Your task to perform on an android device: find snoozed emails in the gmail app Image 0: 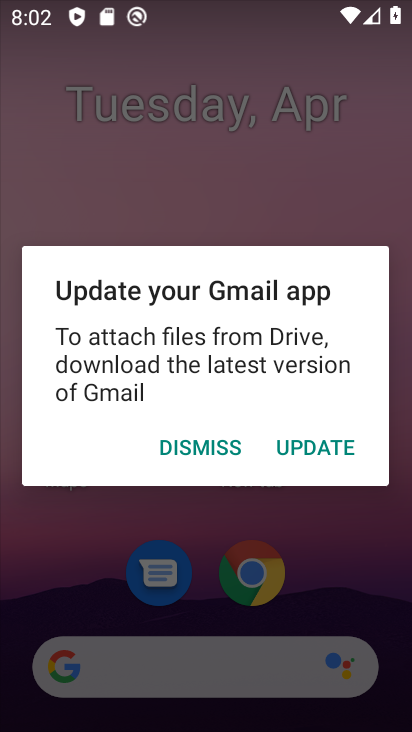
Step 0: press home button
Your task to perform on an android device: find snoozed emails in the gmail app Image 1: 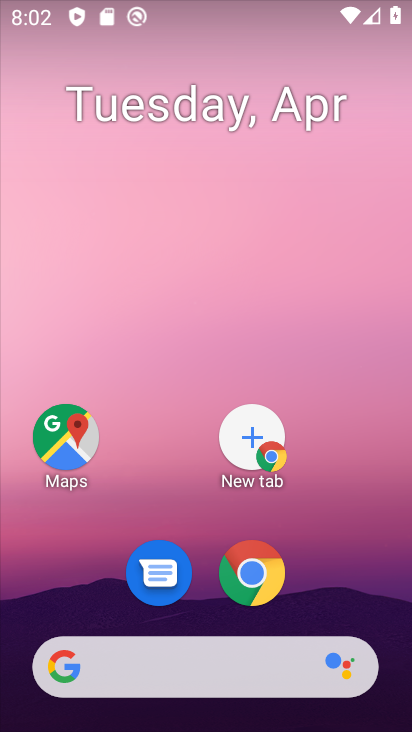
Step 1: drag from (168, 111) to (177, 4)
Your task to perform on an android device: find snoozed emails in the gmail app Image 2: 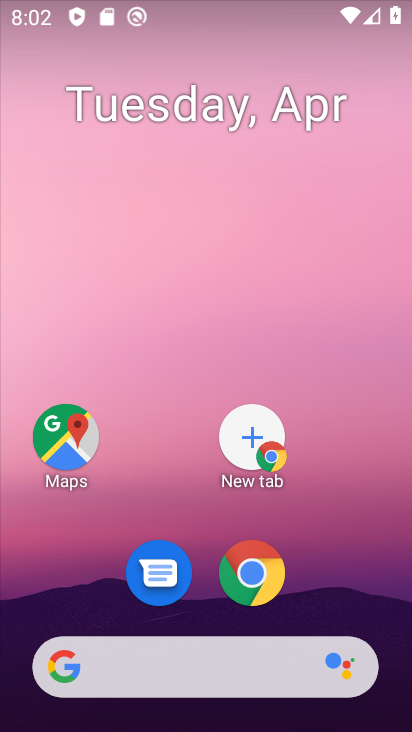
Step 2: drag from (241, 262) to (250, 69)
Your task to perform on an android device: find snoozed emails in the gmail app Image 3: 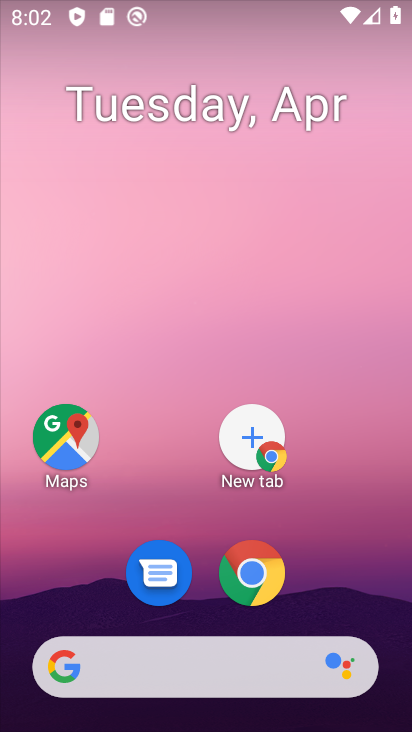
Step 3: drag from (145, 493) to (205, 51)
Your task to perform on an android device: find snoozed emails in the gmail app Image 4: 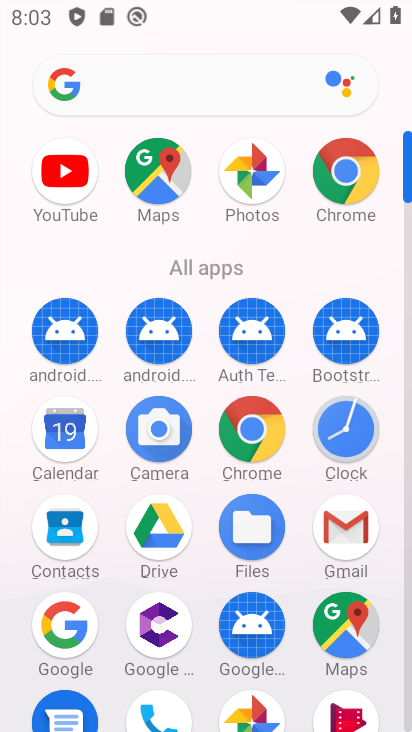
Step 4: click (361, 514)
Your task to perform on an android device: find snoozed emails in the gmail app Image 5: 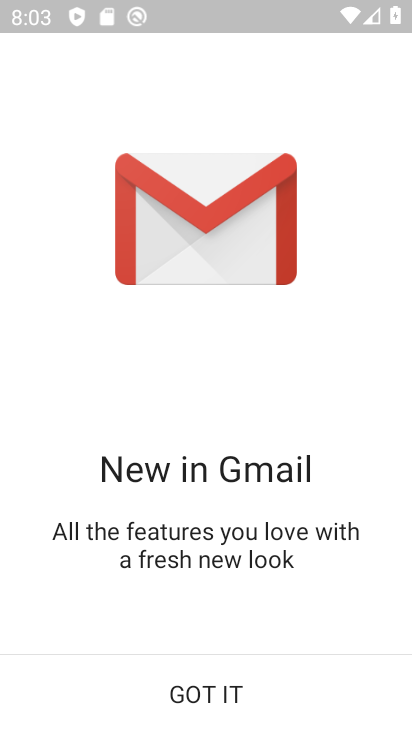
Step 5: click (187, 695)
Your task to perform on an android device: find snoozed emails in the gmail app Image 6: 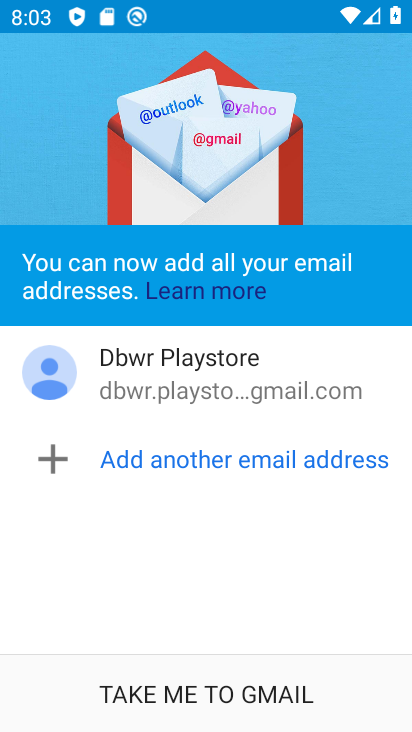
Step 6: click (187, 695)
Your task to perform on an android device: find snoozed emails in the gmail app Image 7: 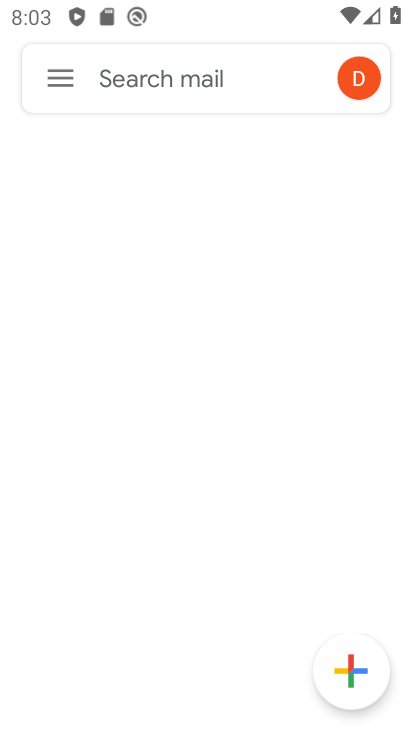
Step 7: click (61, 67)
Your task to perform on an android device: find snoozed emails in the gmail app Image 8: 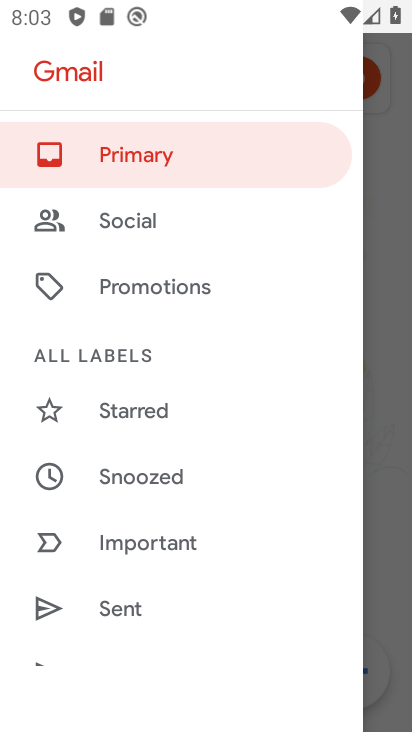
Step 8: drag from (159, 605) to (178, 137)
Your task to perform on an android device: find snoozed emails in the gmail app Image 9: 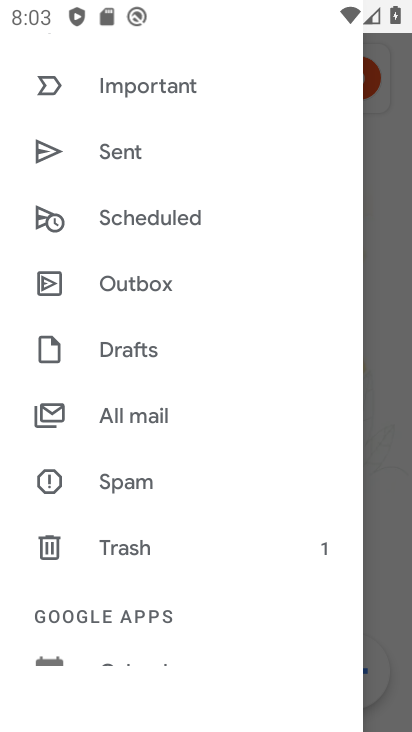
Step 9: drag from (162, 186) to (187, 553)
Your task to perform on an android device: find snoozed emails in the gmail app Image 10: 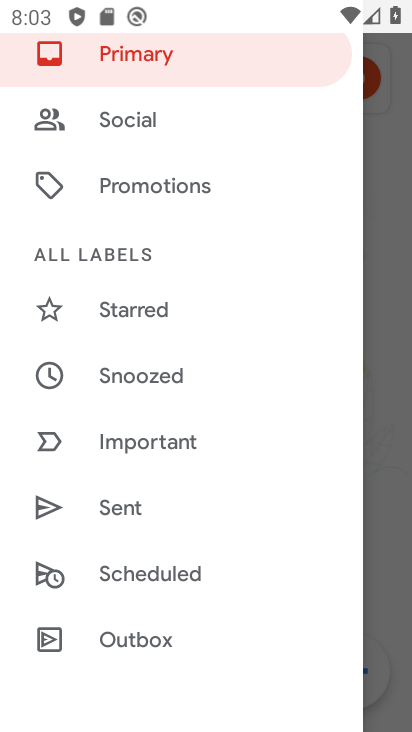
Step 10: click (173, 378)
Your task to perform on an android device: find snoozed emails in the gmail app Image 11: 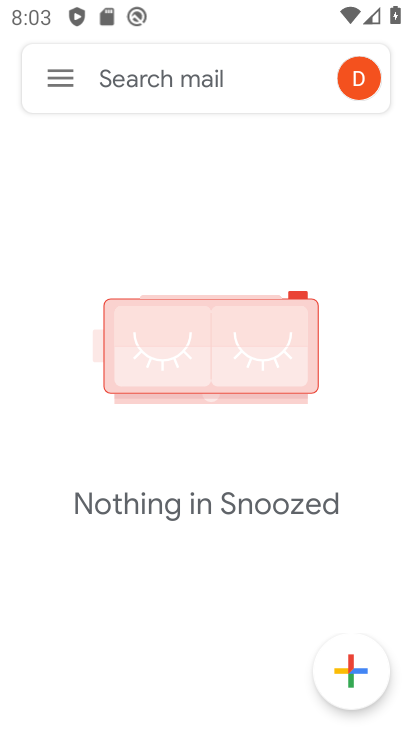
Step 11: task complete